Your task to perform on an android device: toggle show notifications on the lock screen Image 0: 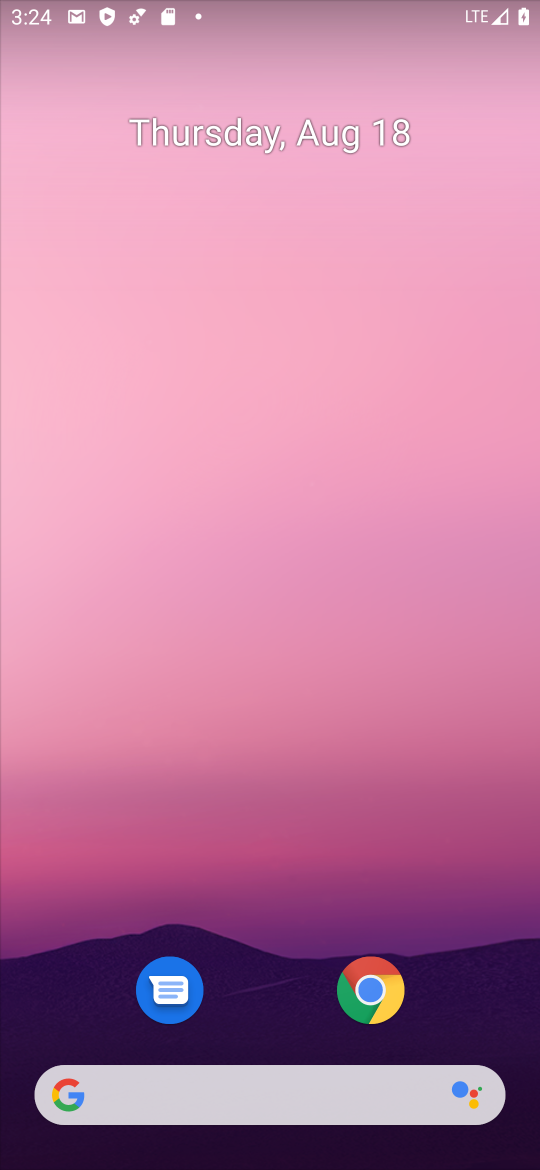
Step 0: drag from (245, 928) to (233, 190)
Your task to perform on an android device: toggle show notifications on the lock screen Image 1: 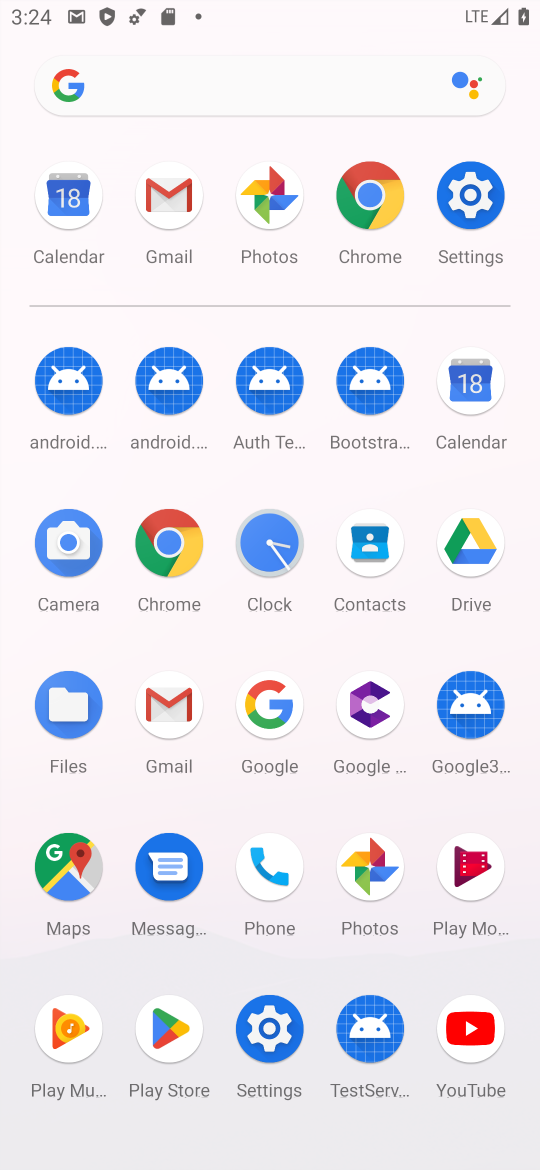
Step 1: click (262, 1036)
Your task to perform on an android device: toggle show notifications on the lock screen Image 2: 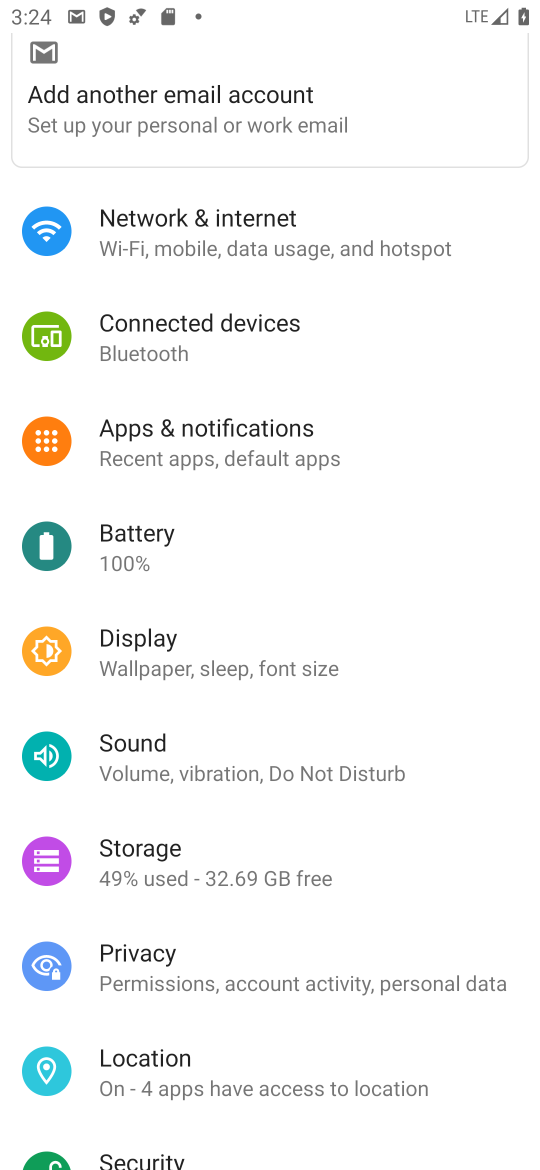
Step 2: click (258, 438)
Your task to perform on an android device: toggle show notifications on the lock screen Image 3: 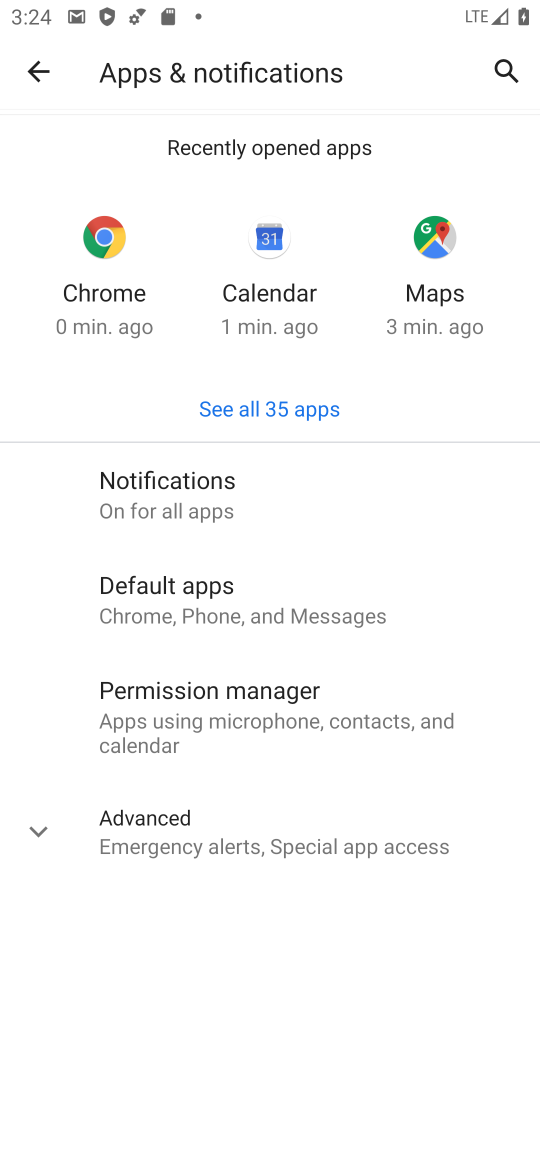
Step 3: click (177, 500)
Your task to perform on an android device: toggle show notifications on the lock screen Image 4: 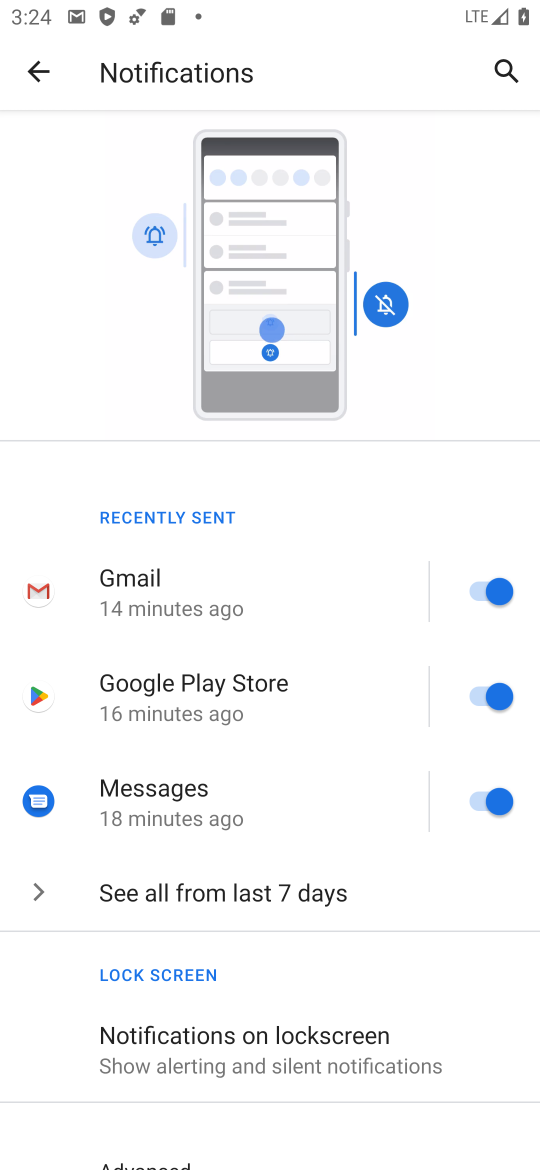
Step 4: drag from (302, 982) to (368, 212)
Your task to perform on an android device: toggle show notifications on the lock screen Image 5: 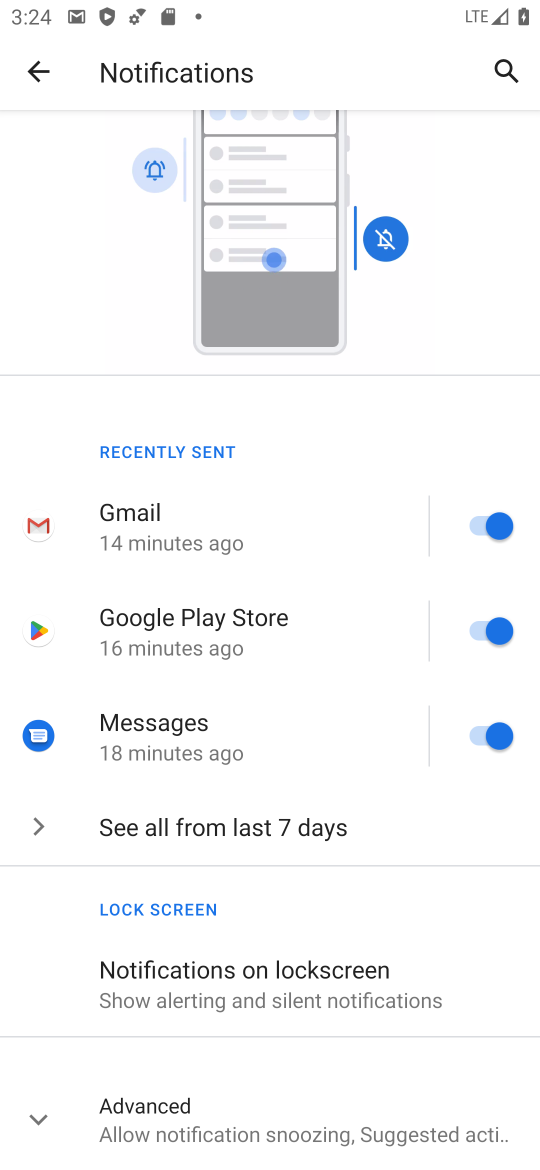
Step 5: click (332, 1001)
Your task to perform on an android device: toggle show notifications on the lock screen Image 6: 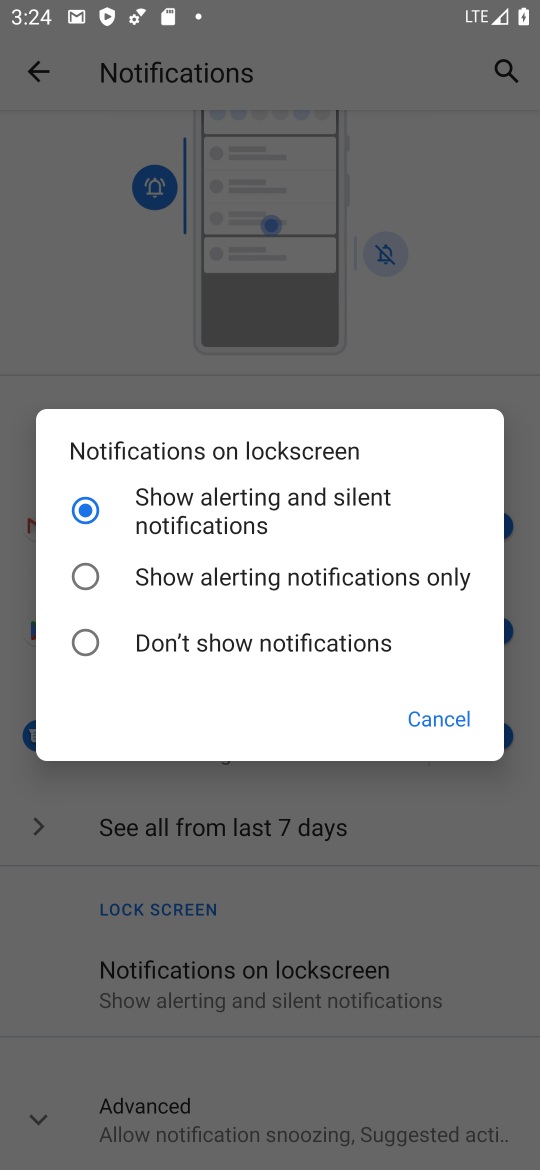
Step 6: click (364, 581)
Your task to perform on an android device: toggle show notifications on the lock screen Image 7: 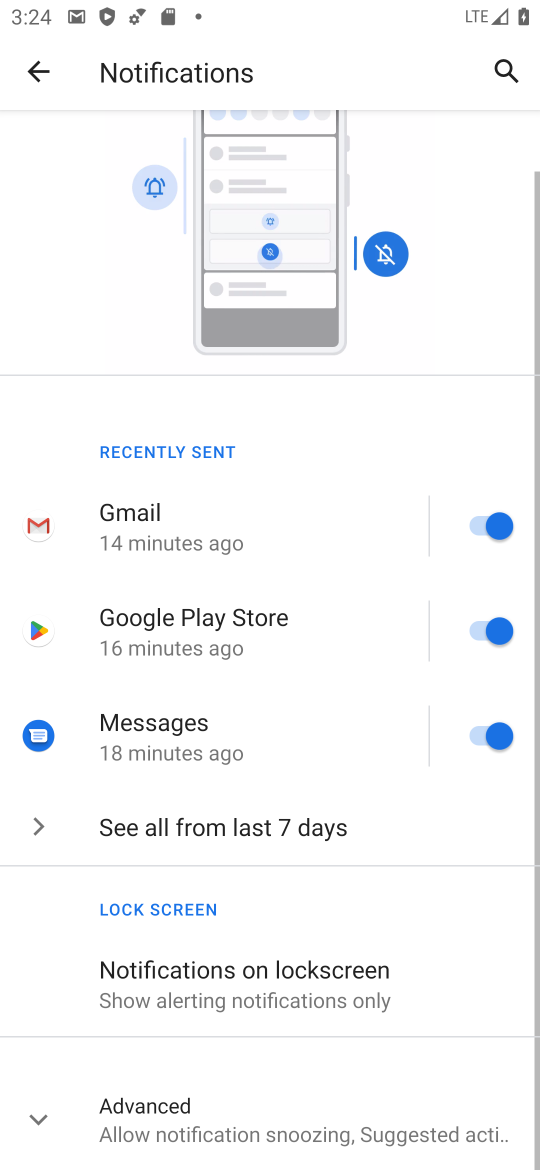
Step 7: task complete